Your task to perform on an android device: open chrome privacy settings Image 0: 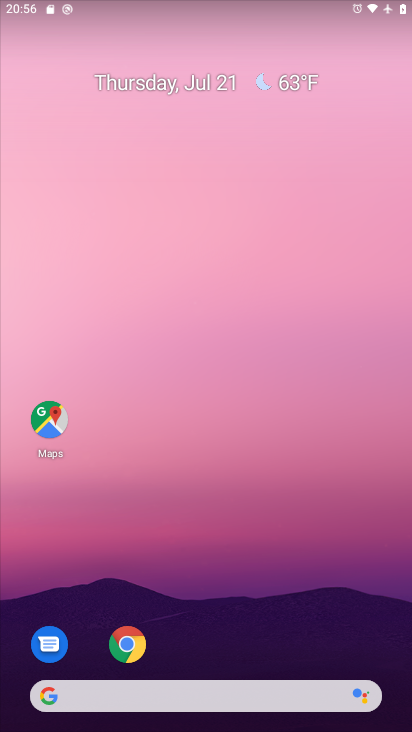
Step 0: drag from (243, 663) to (174, 276)
Your task to perform on an android device: open chrome privacy settings Image 1: 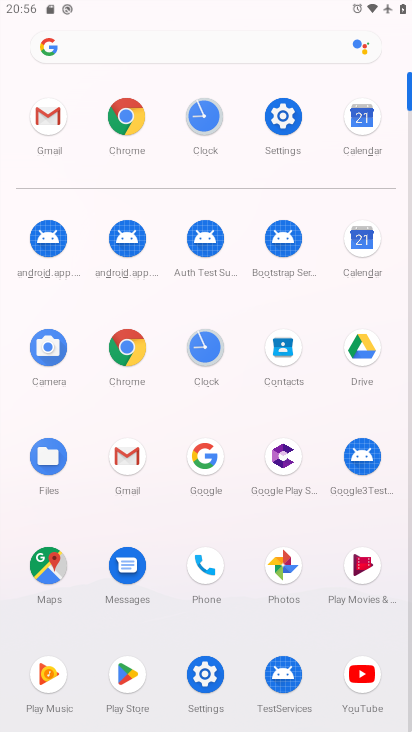
Step 1: click (125, 117)
Your task to perform on an android device: open chrome privacy settings Image 2: 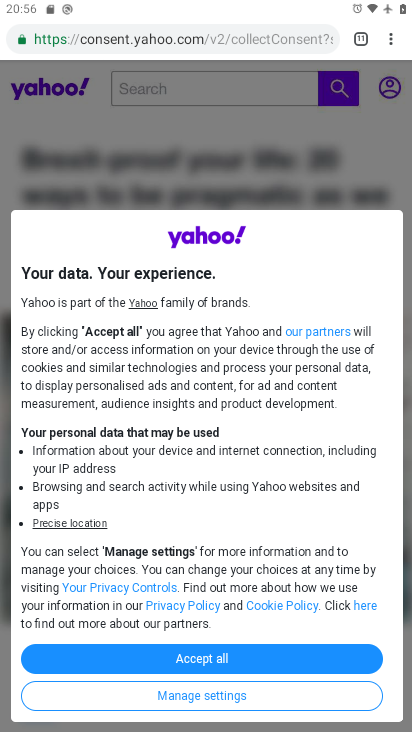
Step 2: click (401, 37)
Your task to perform on an android device: open chrome privacy settings Image 3: 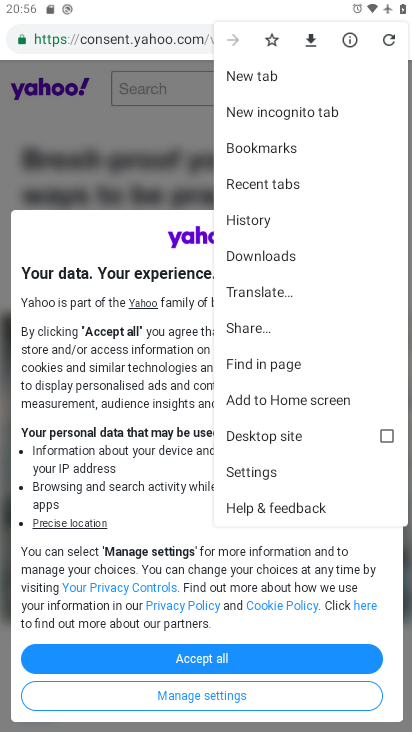
Step 3: click (290, 468)
Your task to perform on an android device: open chrome privacy settings Image 4: 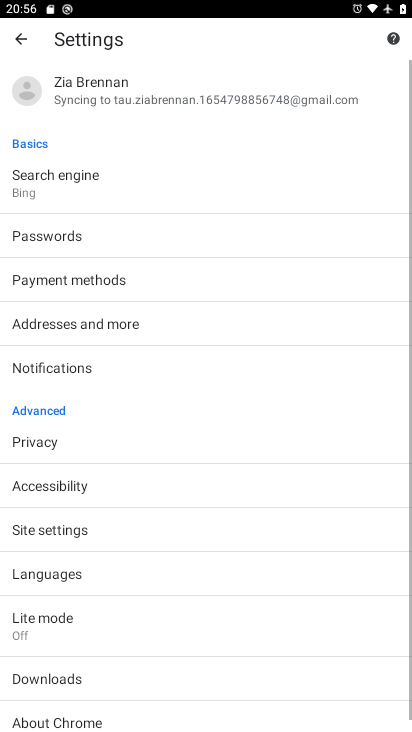
Step 4: click (99, 443)
Your task to perform on an android device: open chrome privacy settings Image 5: 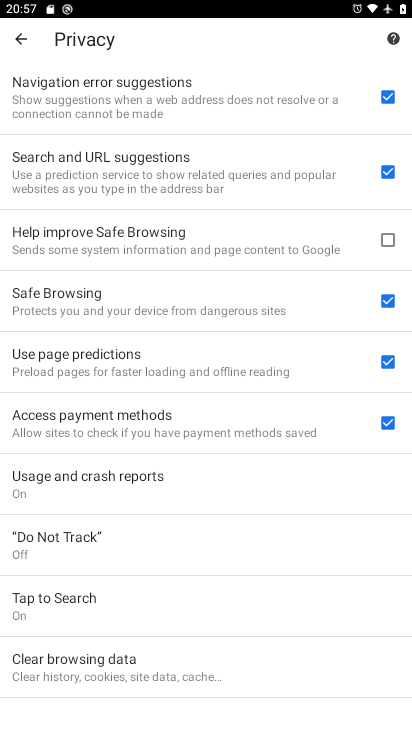
Step 5: task complete